Your task to perform on an android device: open app "DoorDash - Dasher" (install if not already installed) and go to login screen Image 0: 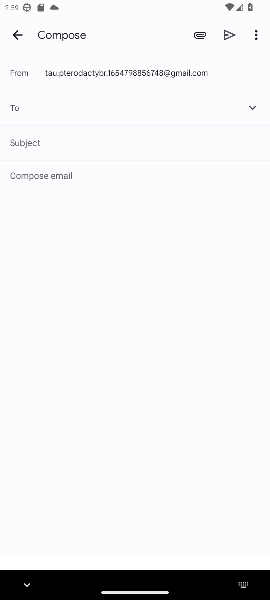
Step 0: press home button
Your task to perform on an android device: open app "DoorDash - Dasher" (install if not already installed) and go to login screen Image 1: 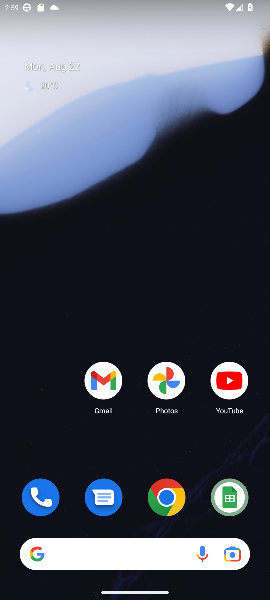
Step 1: drag from (59, 439) to (55, 55)
Your task to perform on an android device: open app "DoorDash - Dasher" (install if not already installed) and go to login screen Image 2: 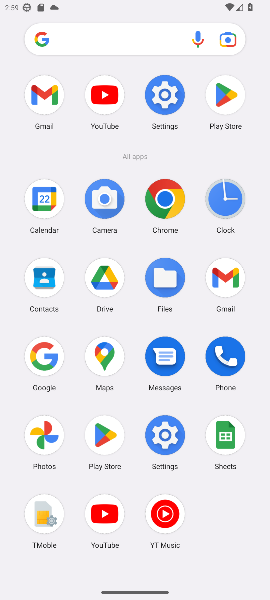
Step 2: click (103, 440)
Your task to perform on an android device: open app "DoorDash - Dasher" (install if not already installed) and go to login screen Image 3: 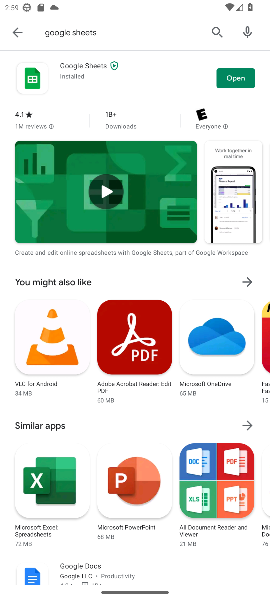
Step 3: click (18, 34)
Your task to perform on an android device: open app "DoorDash - Dasher" (install if not already installed) and go to login screen Image 4: 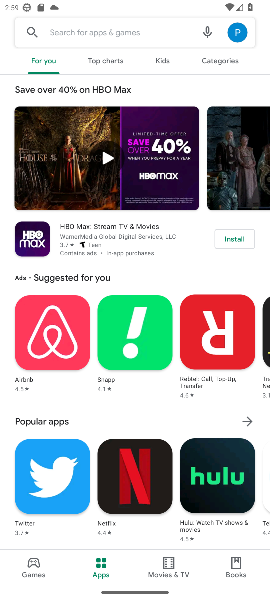
Step 4: click (136, 30)
Your task to perform on an android device: open app "DoorDash - Dasher" (install if not already installed) and go to login screen Image 5: 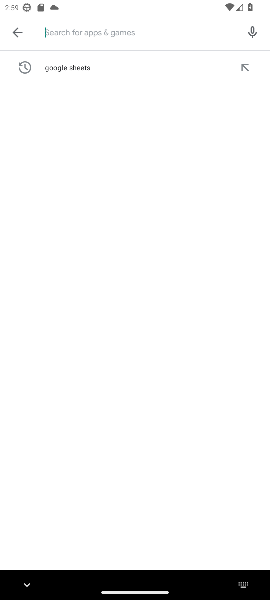
Step 5: click (134, 34)
Your task to perform on an android device: open app "DoorDash - Dasher" (install if not already installed) and go to login screen Image 6: 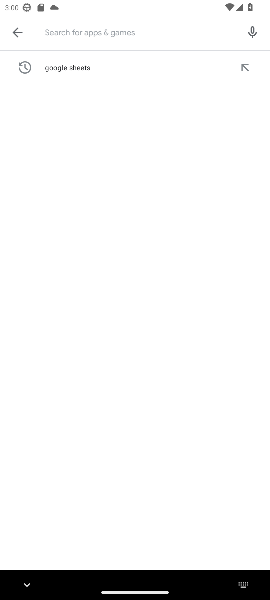
Step 6: type "doordash dasher"
Your task to perform on an android device: open app "DoorDash - Dasher" (install if not already installed) and go to login screen Image 7: 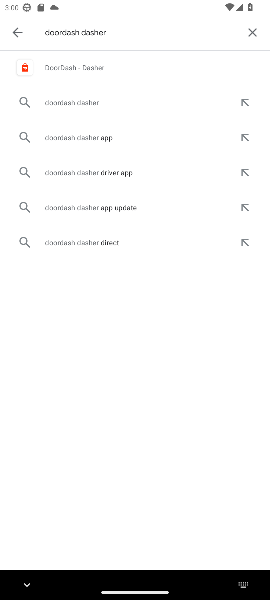
Step 7: click (89, 65)
Your task to perform on an android device: open app "DoorDash - Dasher" (install if not already installed) and go to login screen Image 8: 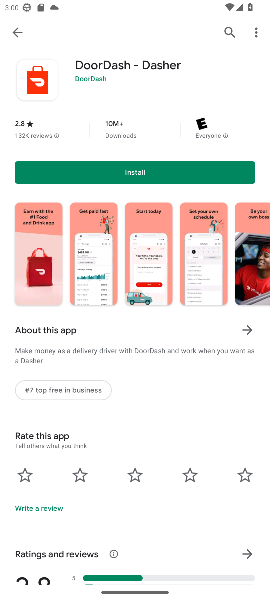
Step 8: click (144, 175)
Your task to perform on an android device: open app "DoorDash - Dasher" (install if not already installed) and go to login screen Image 9: 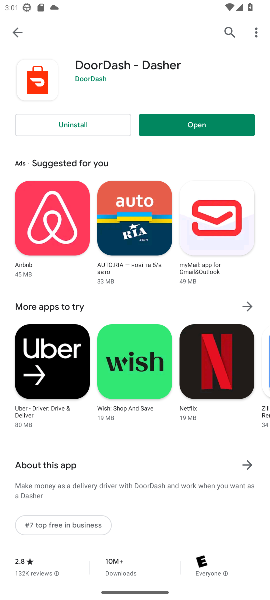
Step 9: click (219, 129)
Your task to perform on an android device: open app "DoorDash - Dasher" (install if not already installed) and go to login screen Image 10: 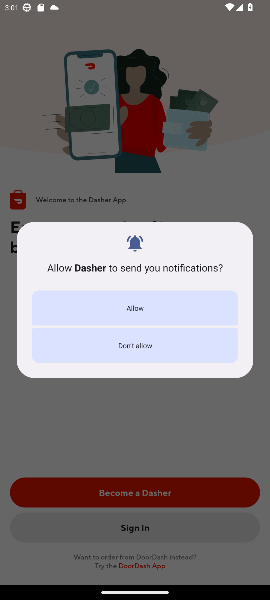
Step 10: click (157, 310)
Your task to perform on an android device: open app "DoorDash - Dasher" (install if not already installed) and go to login screen Image 11: 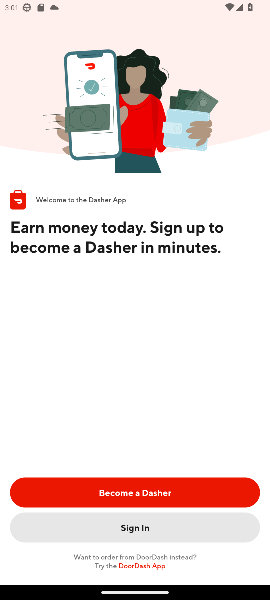
Step 11: task complete